Your task to perform on an android device: turn off wifi Image 0: 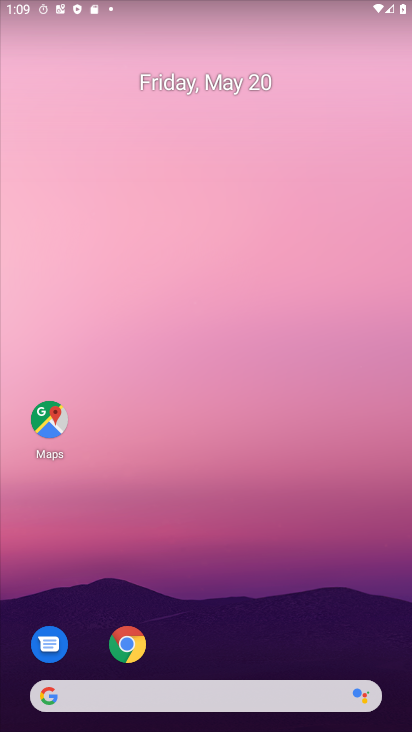
Step 0: drag from (308, 561) to (181, 6)
Your task to perform on an android device: turn off wifi Image 1: 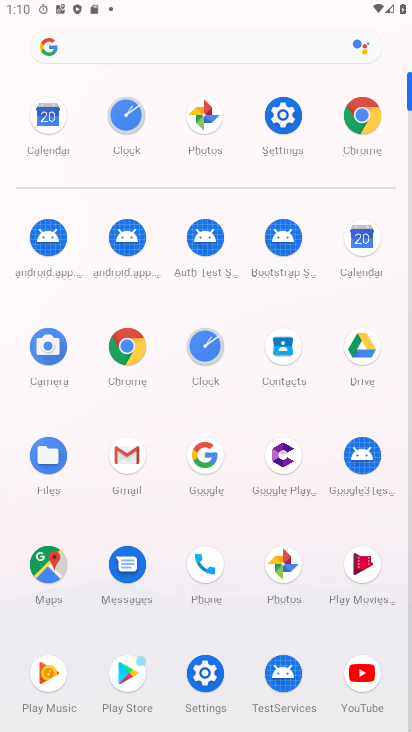
Step 1: click (289, 120)
Your task to perform on an android device: turn off wifi Image 2: 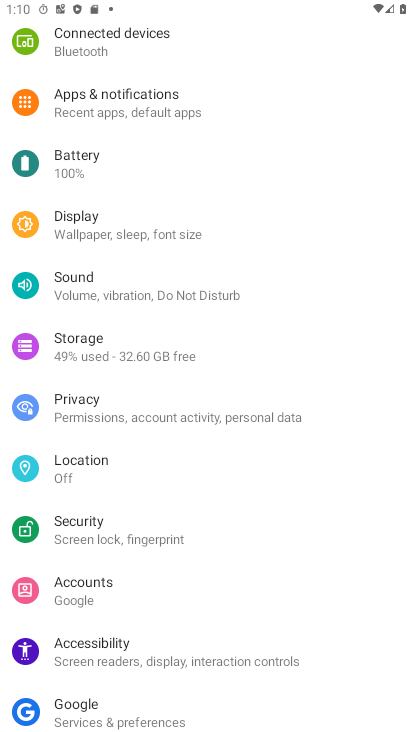
Step 2: drag from (212, 141) to (231, 503)
Your task to perform on an android device: turn off wifi Image 3: 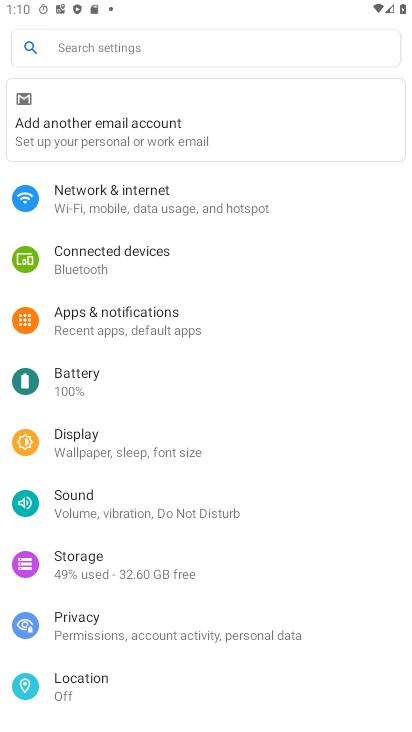
Step 3: click (102, 199)
Your task to perform on an android device: turn off wifi Image 4: 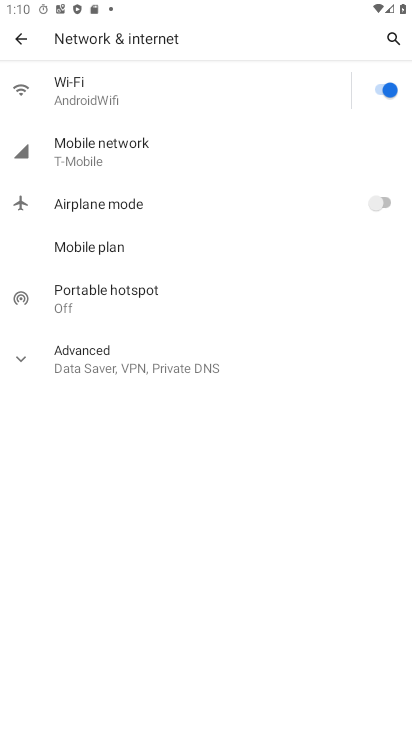
Step 4: click (380, 98)
Your task to perform on an android device: turn off wifi Image 5: 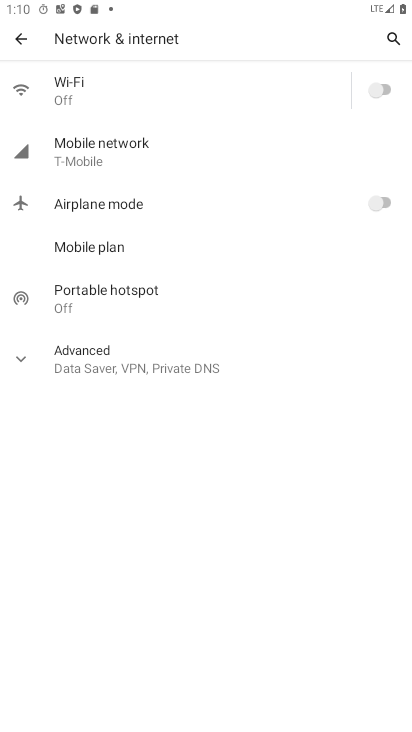
Step 5: task complete